Your task to perform on an android device: turn smart compose on in the gmail app Image 0: 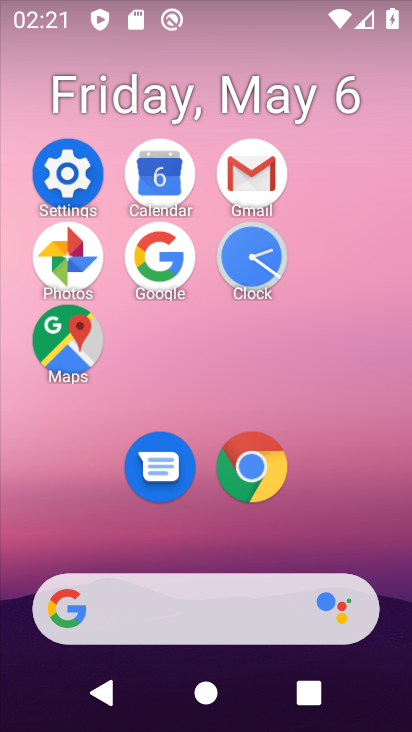
Step 0: click (249, 177)
Your task to perform on an android device: turn smart compose on in the gmail app Image 1: 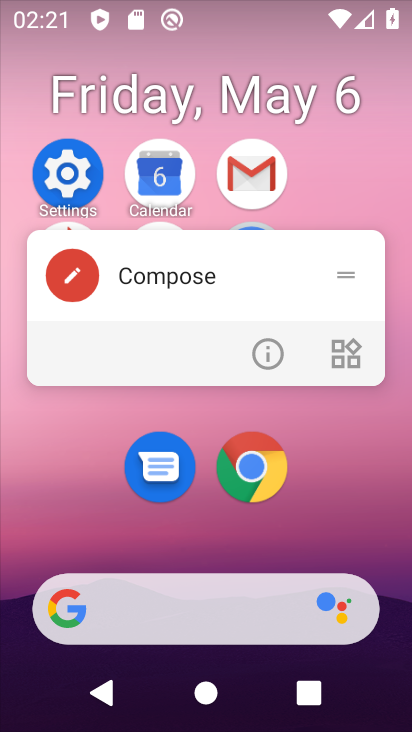
Step 1: click (249, 177)
Your task to perform on an android device: turn smart compose on in the gmail app Image 2: 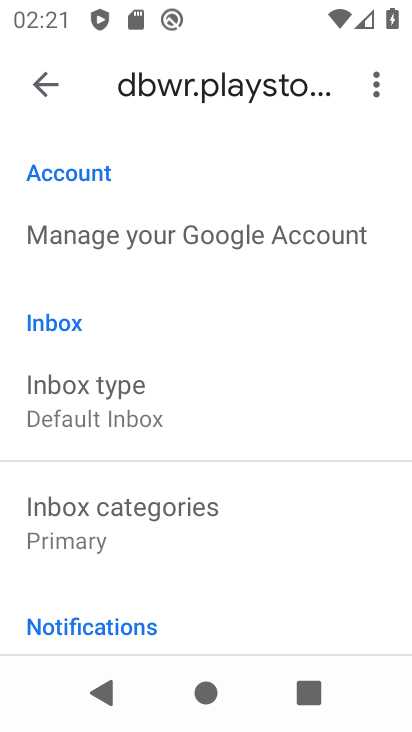
Step 2: task complete